Your task to perform on an android device: Open Wikipedia Image 0: 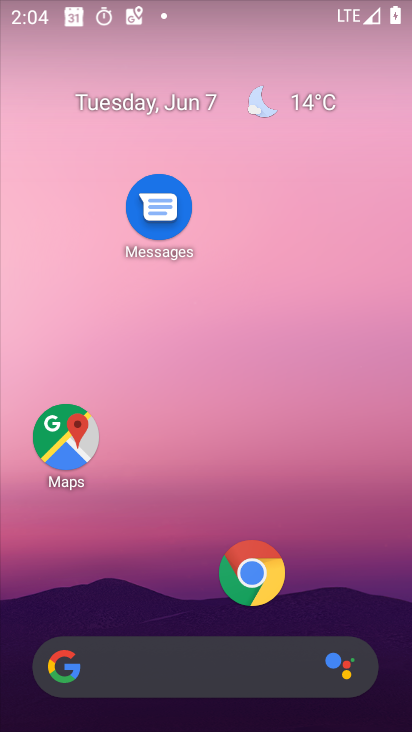
Step 0: press home button
Your task to perform on an android device: Open Wikipedia Image 1: 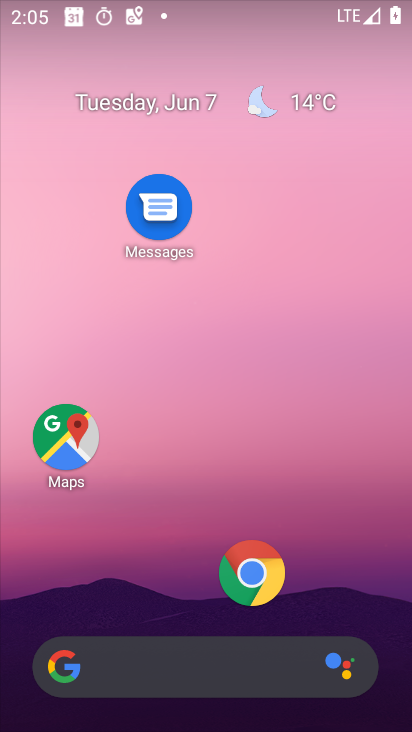
Step 1: click (250, 566)
Your task to perform on an android device: Open Wikipedia Image 2: 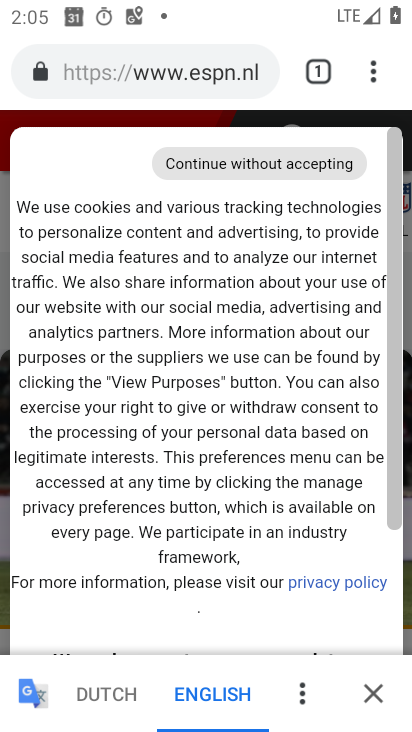
Step 2: drag from (247, 575) to (249, 171)
Your task to perform on an android device: Open Wikipedia Image 3: 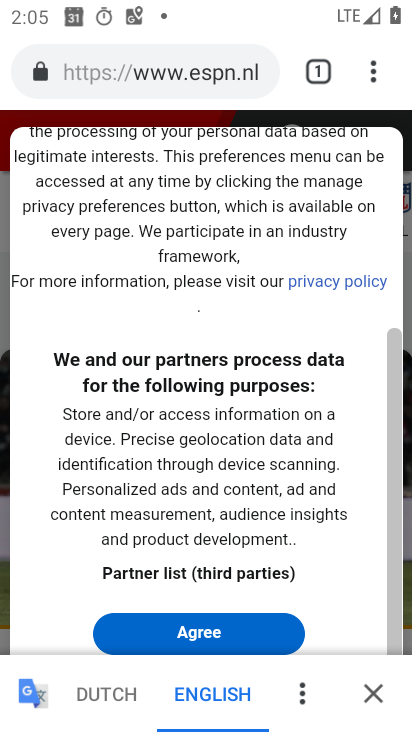
Step 3: click (235, 626)
Your task to perform on an android device: Open Wikipedia Image 4: 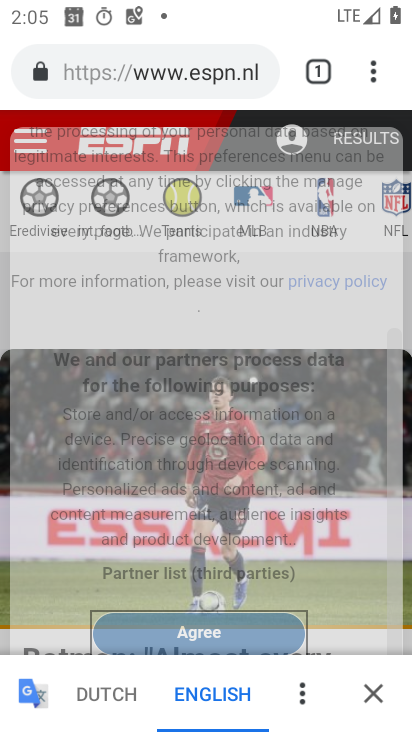
Step 4: click (306, 68)
Your task to perform on an android device: Open Wikipedia Image 5: 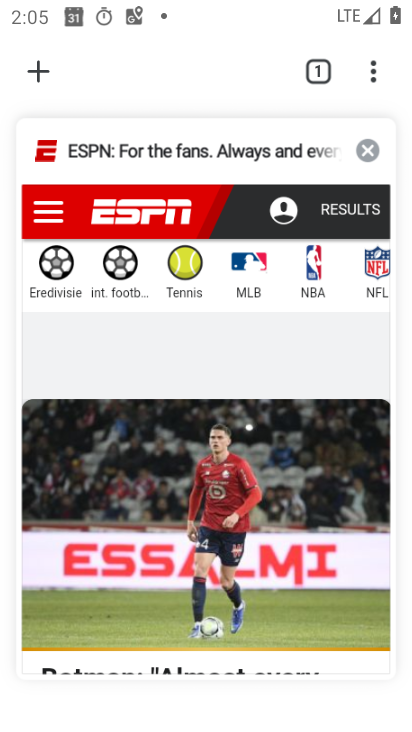
Step 5: click (367, 149)
Your task to perform on an android device: Open Wikipedia Image 6: 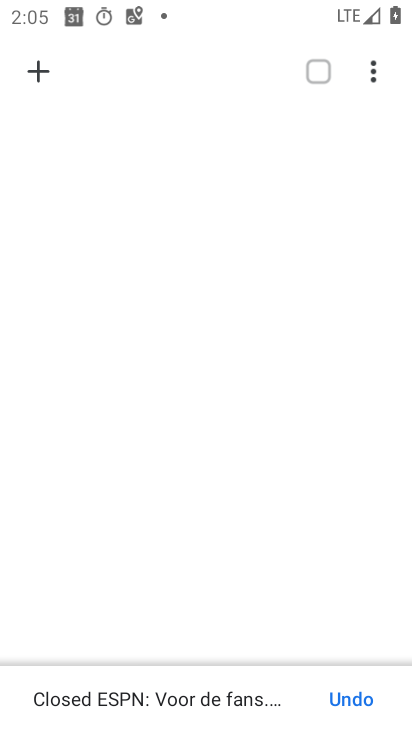
Step 6: click (47, 67)
Your task to perform on an android device: Open Wikipedia Image 7: 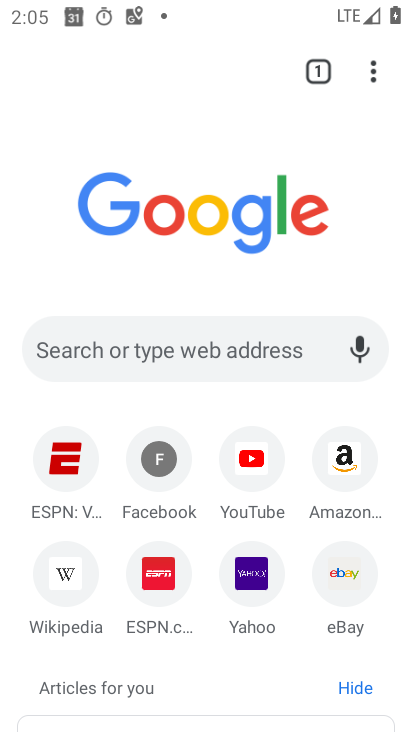
Step 7: click (62, 569)
Your task to perform on an android device: Open Wikipedia Image 8: 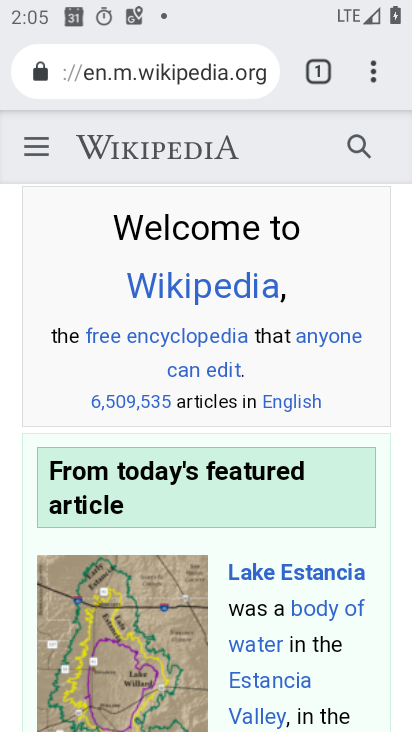
Step 8: task complete